Your task to perform on an android device: turn pop-ups on in chrome Image 0: 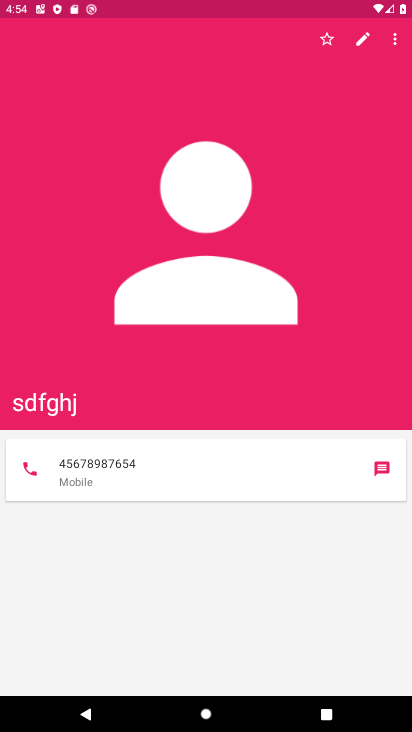
Step 0: press home button
Your task to perform on an android device: turn pop-ups on in chrome Image 1: 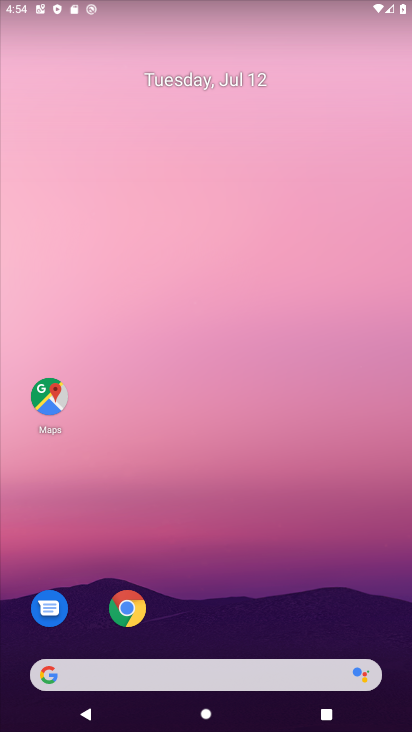
Step 1: click (128, 596)
Your task to perform on an android device: turn pop-ups on in chrome Image 2: 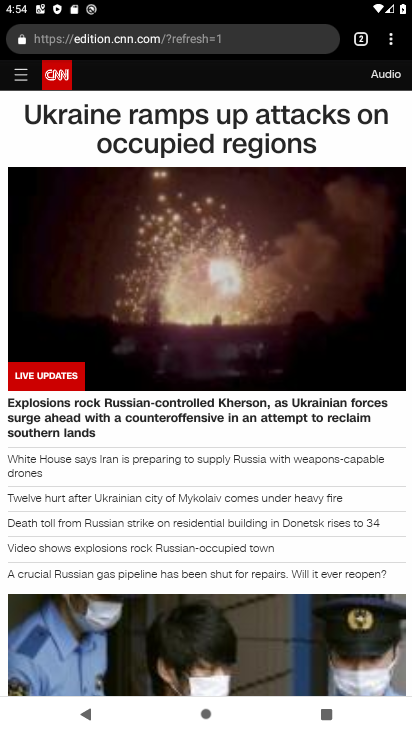
Step 2: click (388, 46)
Your task to perform on an android device: turn pop-ups on in chrome Image 3: 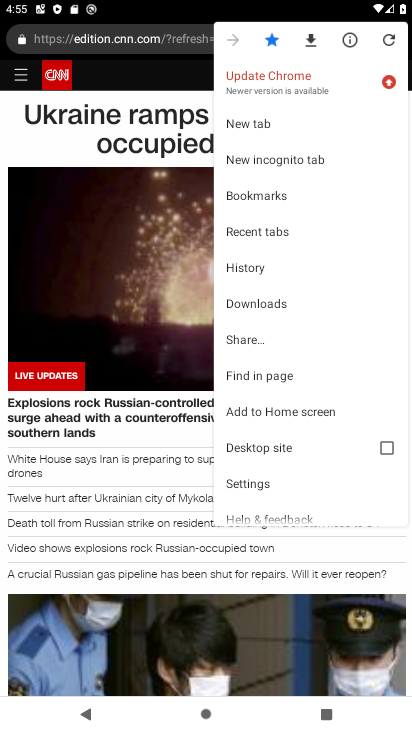
Step 3: click (260, 477)
Your task to perform on an android device: turn pop-ups on in chrome Image 4: 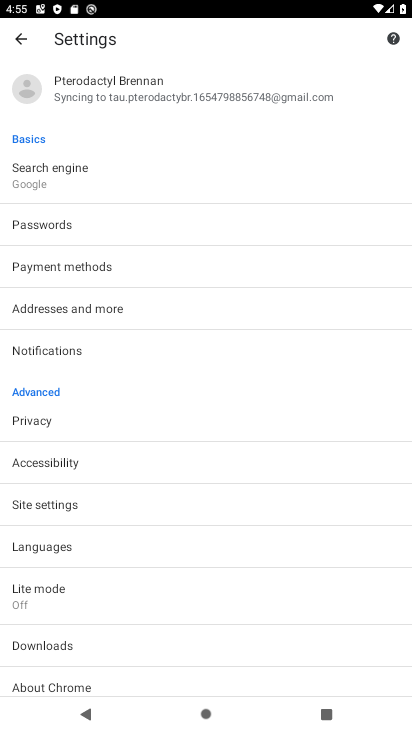
Step 4: click (65, 513)
Your task to perform on an android device: turn pop-ups on in chrome Image 5: 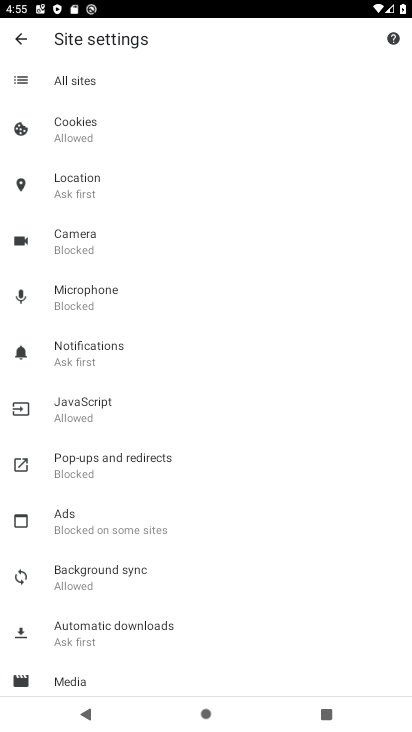
Step 5: click (136, 471)
Your task to perform on an android device: turn pop-ups on in chrome Image 6: 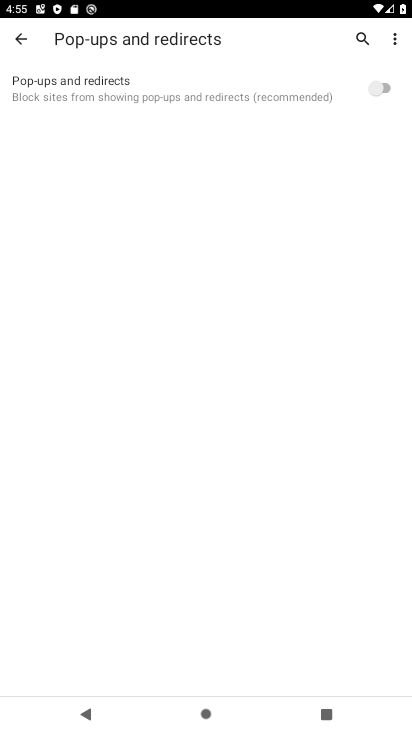
Step 6: click (382, 84)
Your task to perform on an android device: turn pop-ups on in chrome Image 7: 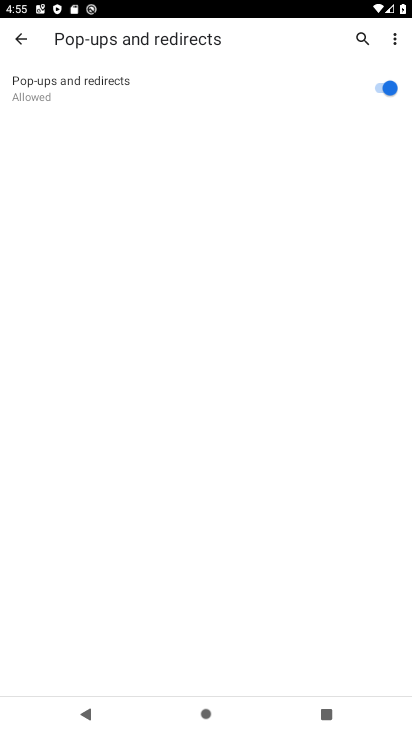
Step 7: task complete